Your task to perform on an android device: uninstall "PUBG MOBILE" Image 0: 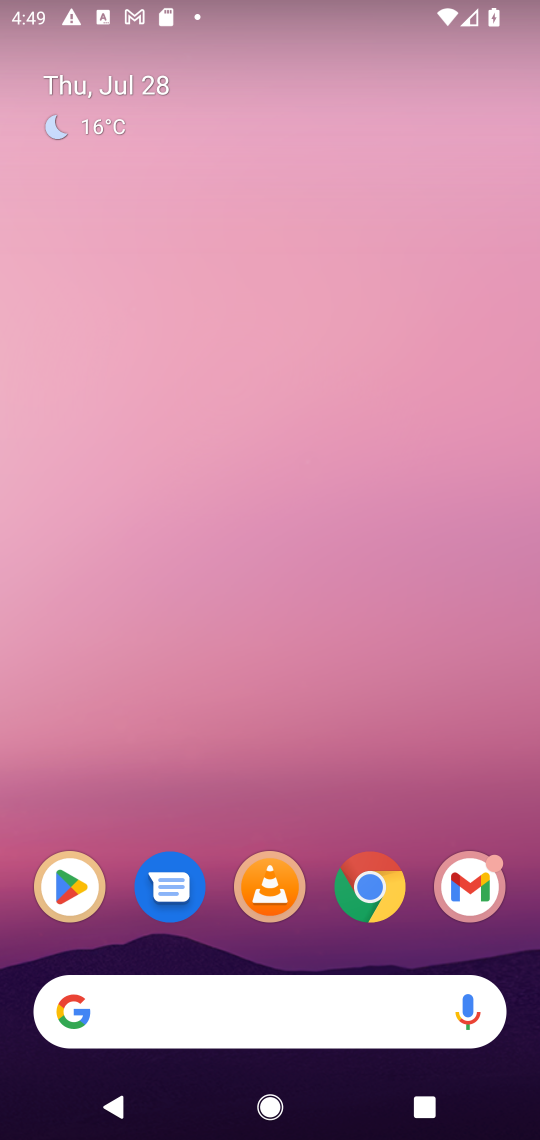
Step 0: click (70, 885)
Your task to perform on an android device: uninstall "PUBG MOBILE" Image 1: 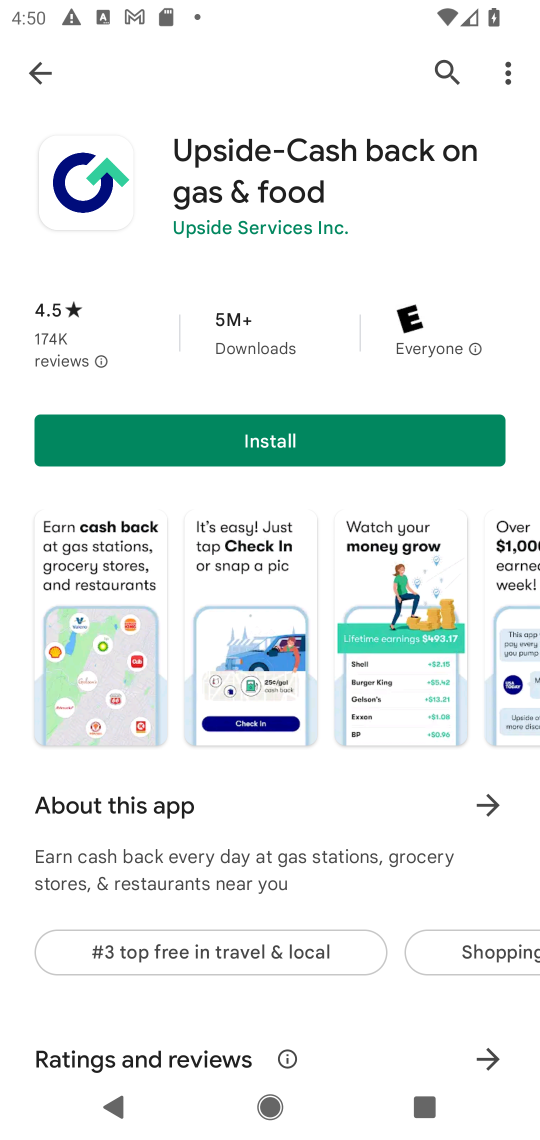
Step 1: click (43, 72)
Your task to perform on an android device: uninstall "PUBG MOBILE" Image 2: 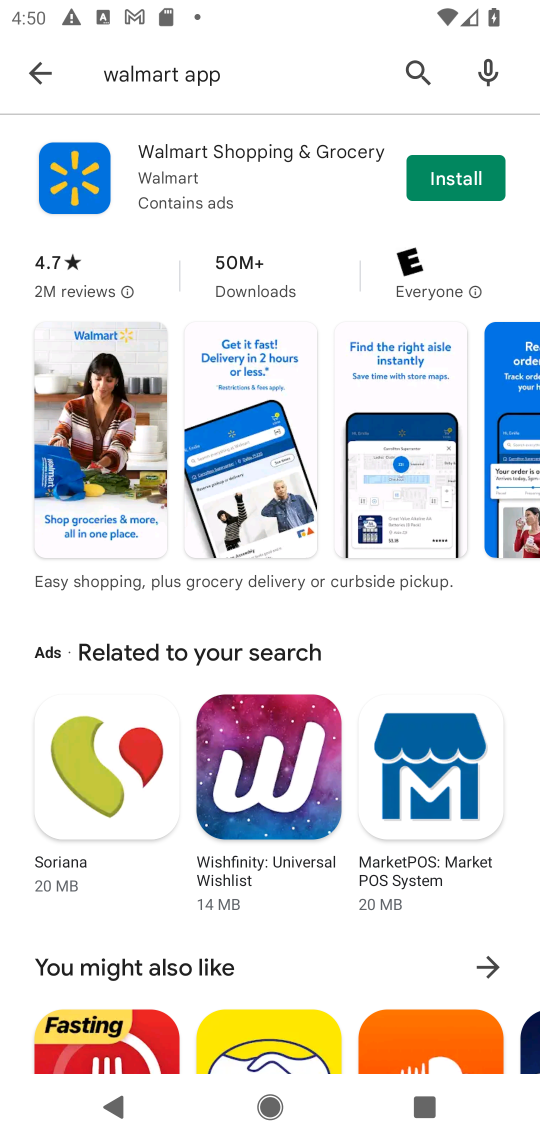
Step 2: click (233, 86)
Your task to perform on an android device: uninstall "PUBG MOBILE" Image 3: 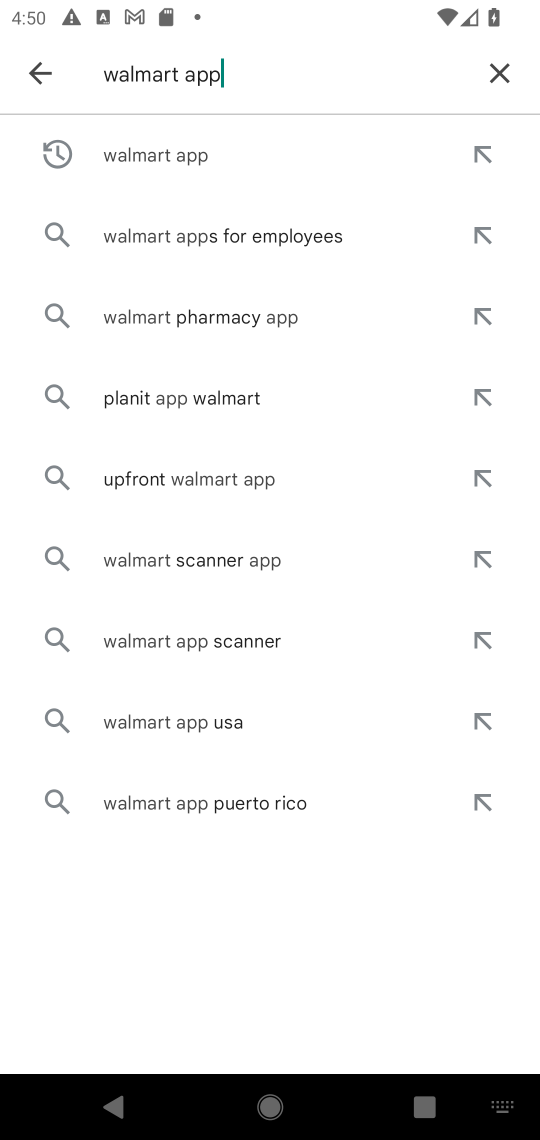
Step 3: click (501, 76)
Your task to perform on an android device: uninstall "PUBG MOBILE" Image 4: 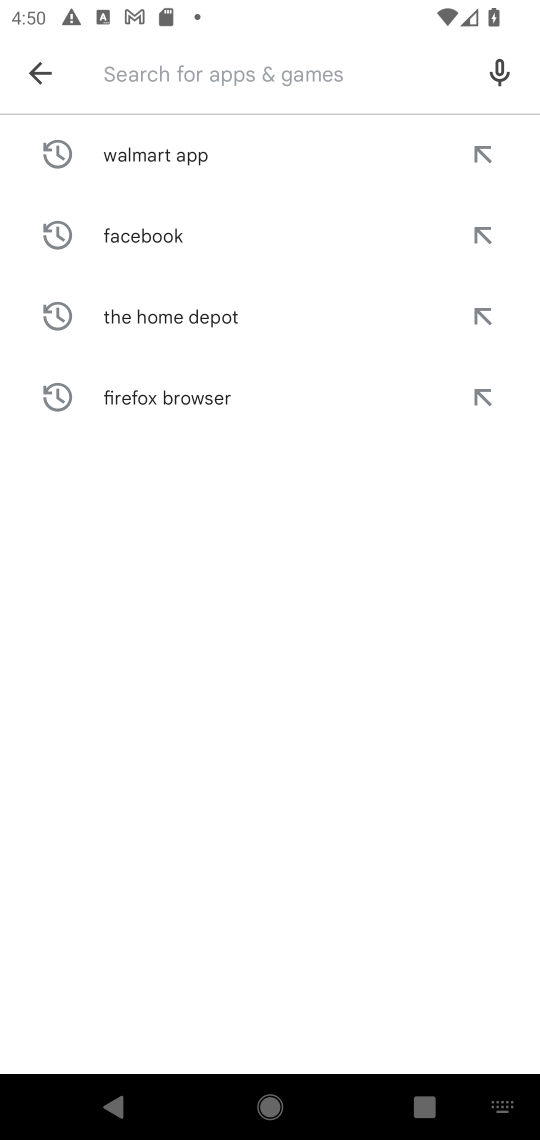
Step 4: type "PubG Mobile"
Your task to perform on an android device: uninstall "PUBG MOBILE" Image 5: 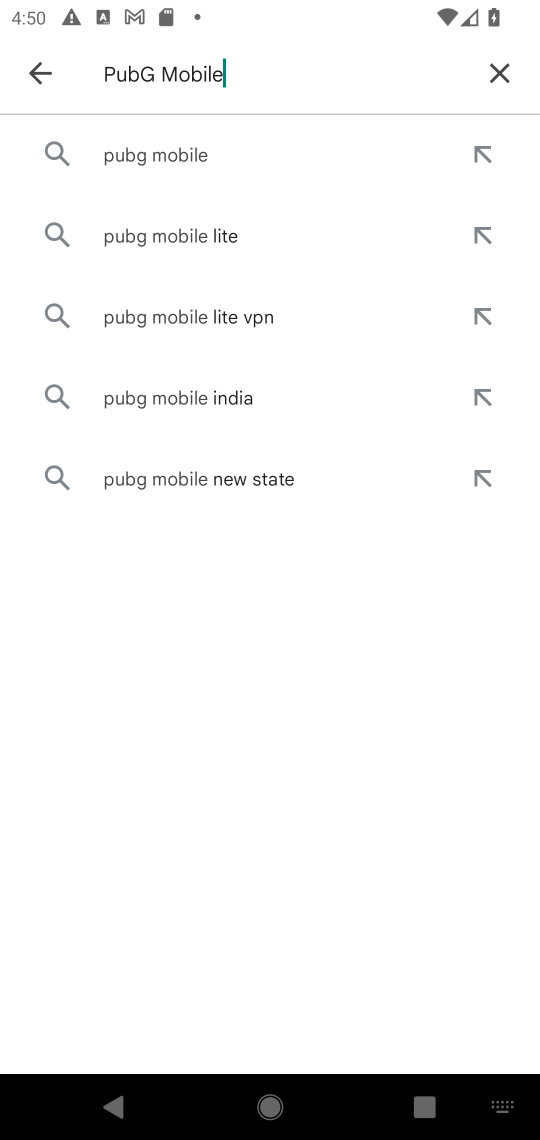
Step 5: click (195, 155)
Your task to perform on an android device: uninstall "PUBG MOBILE" Image 6: 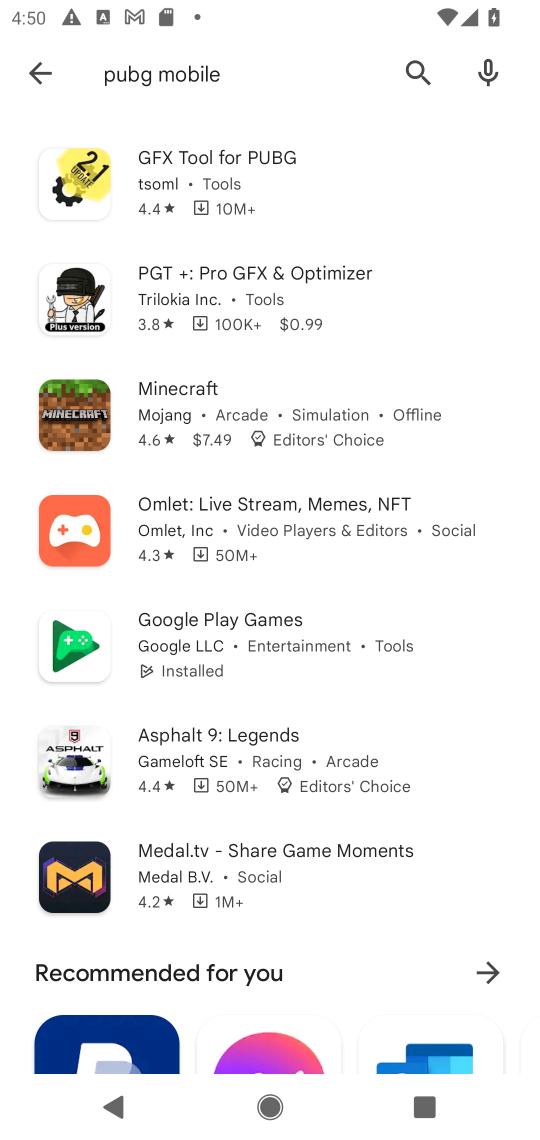
Step 6: task complete